Your task to perform on an android device: Go to eBay Image 0: 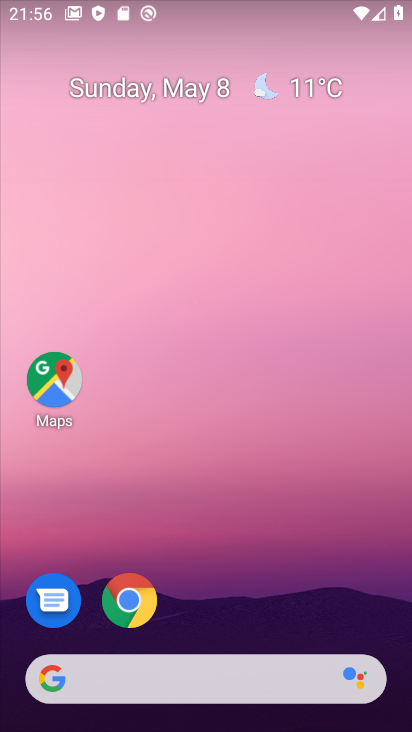
Step 0: click (132, 602)
Your task to perform on an android device: Go to eBay Image 1: 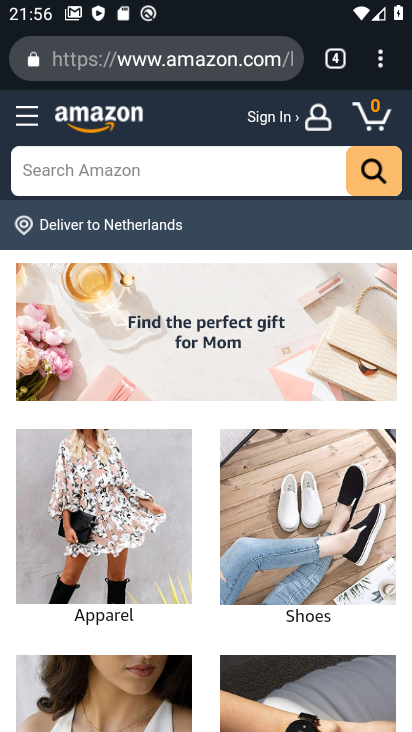
Step 1: click (325, 67)
Your task to perform on an android device: Go to eBay Image 2: 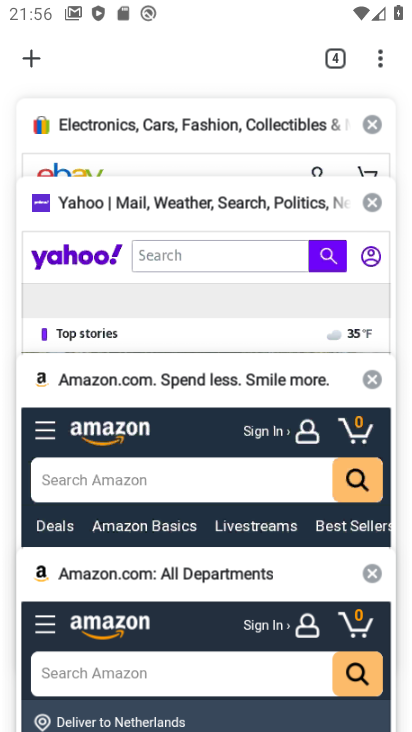
Step 2: click (105, 127)
Your task to perform on an android device: Go to eBay Image 3: 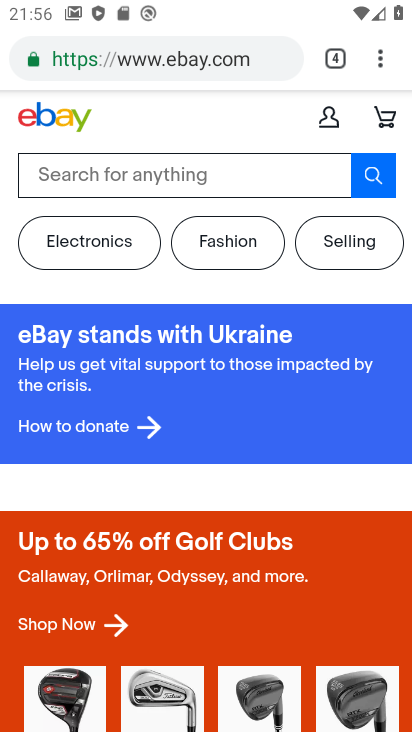
Step 3: task complete